Your task to perform on an android device: turn notification dots off Image 0: 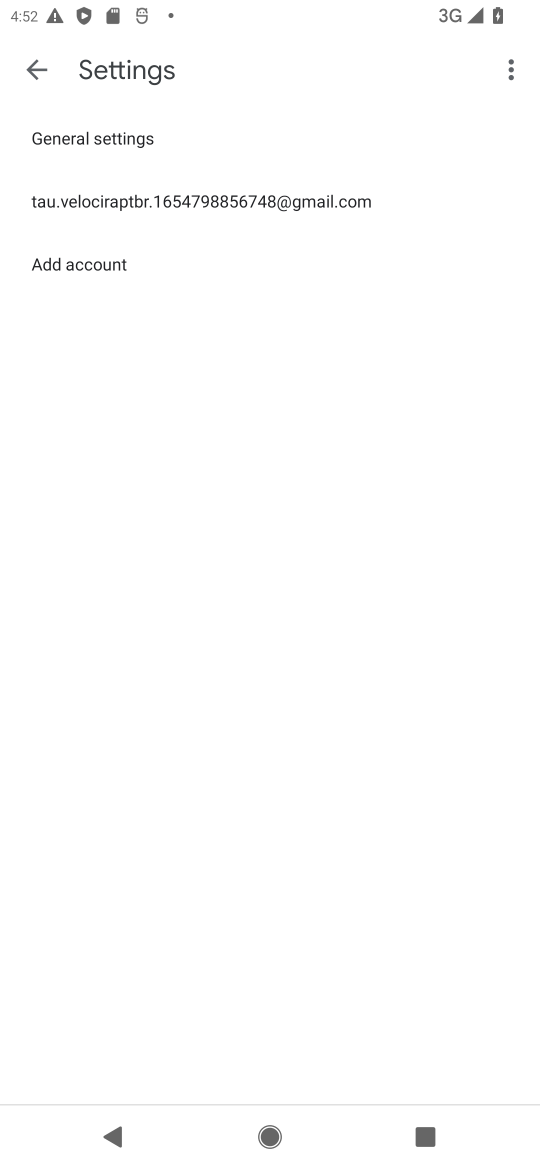
Step 0: press home button
Your task to perform on an android device: turn notification dots off Image 1: 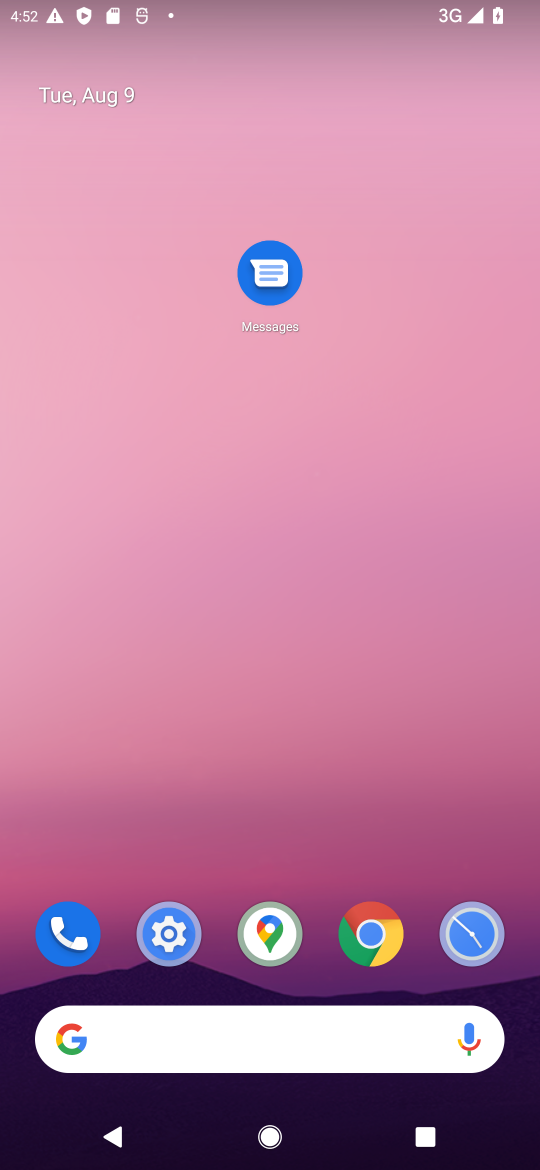
Step 1: click (159, 928)
Your task to perform on an android device: turn notification dots off Image 2: 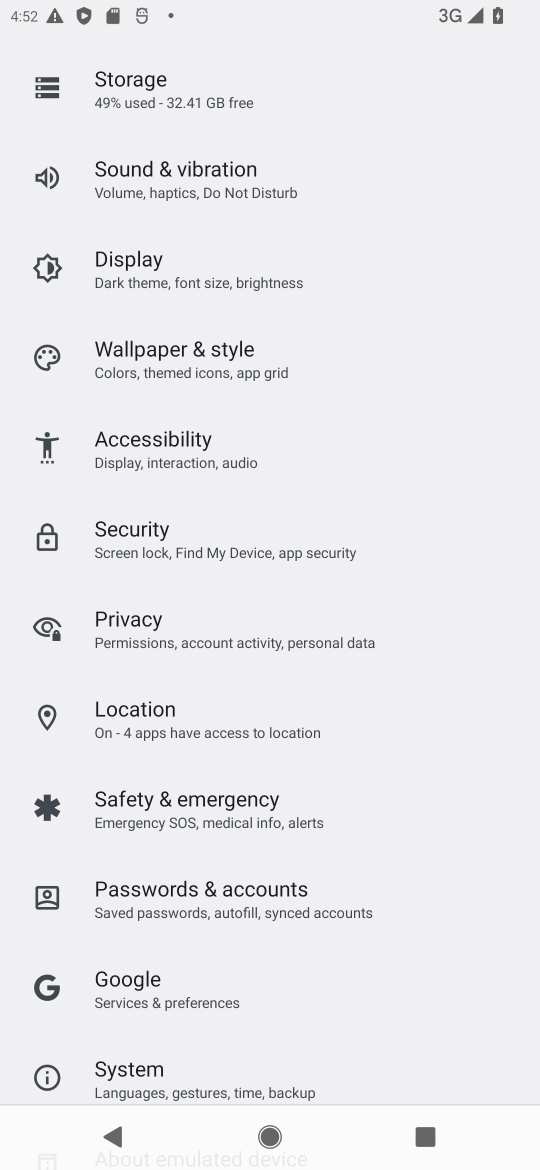
Step 2: drag from (195, 425) to (272, 974)
Your task to perform on an android device: turn notification dots off Image 3: 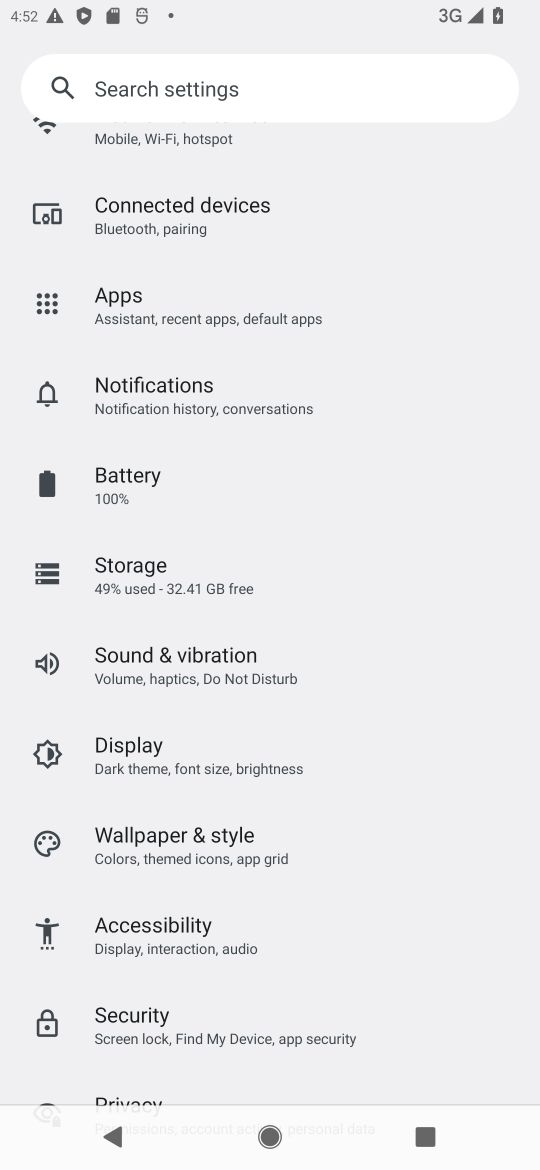
Step 3: click (250, 397)
Your task to perform on an android device: turn notification dots off Image 4: 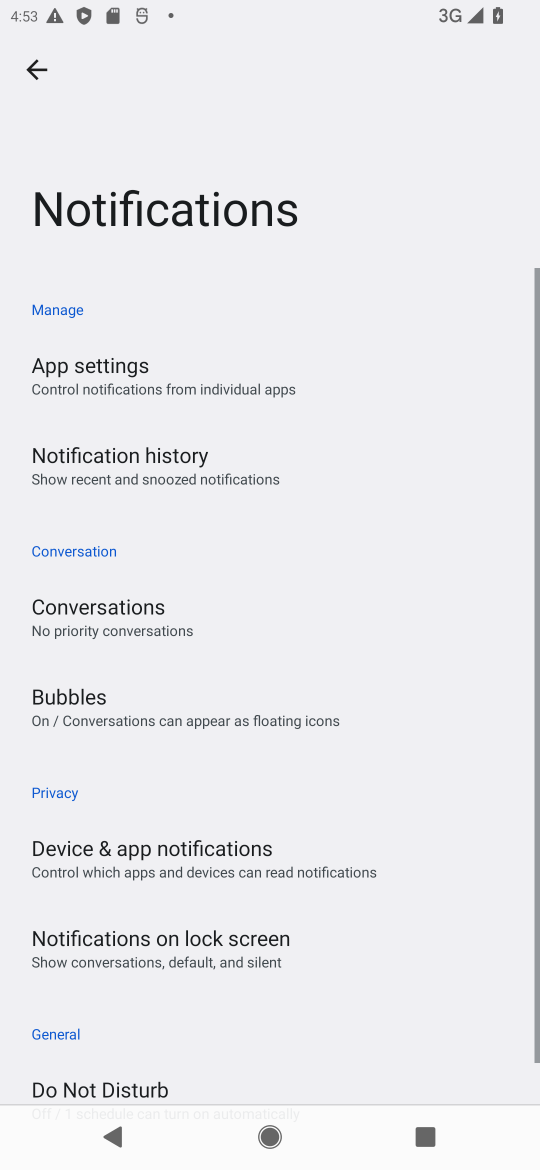
Step 4: task complete